Your task to perform on an android device: snooze an email in the gmail app Image 0: 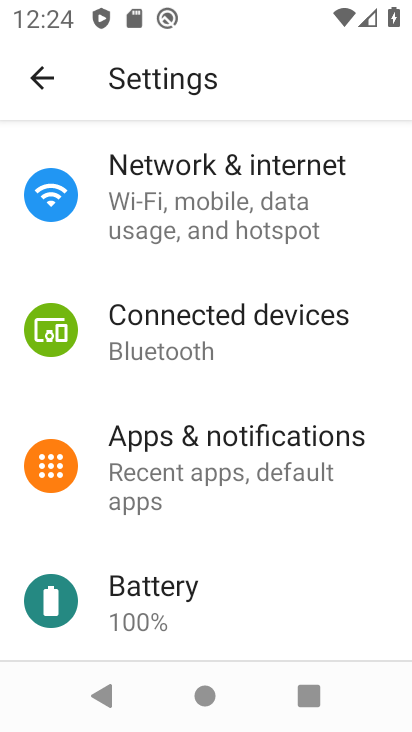
Step 0: press home button
Your task to perform on an android device: snooze an email in the gmail app Image 1: 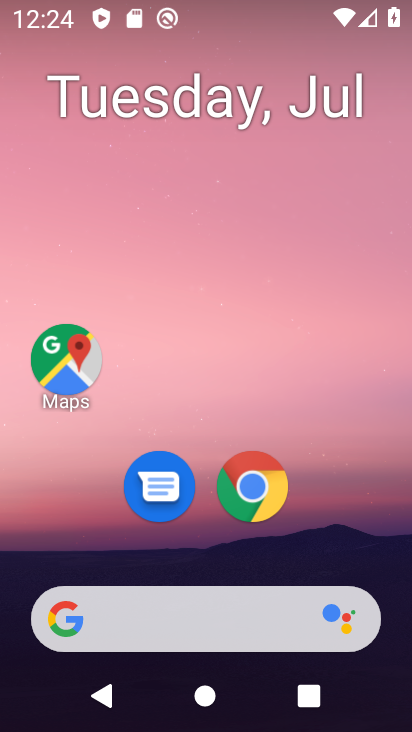
Step 1: drag from (352, 500) to (360, 63)
Your task to perform on an android device: snooze an email in the gmail app Image 2: 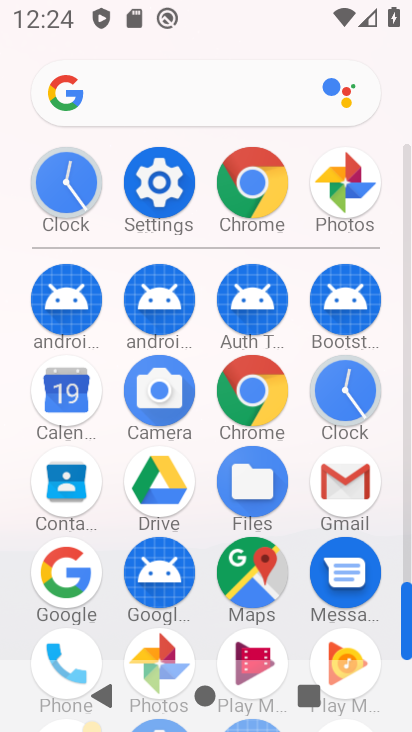
Step 2: click (348, 485)
Your task to perform on an android device: snooze an email in the gmail app Image 3: 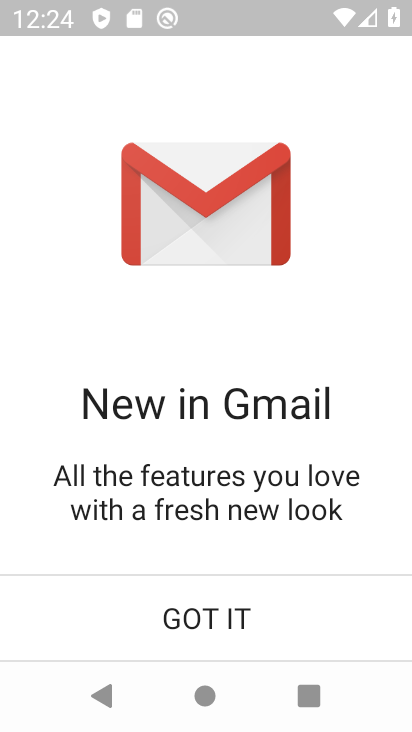
Step 3: click (308, 615)
Your task to perform on an android device: snooze an email in the gmail app Image 4: 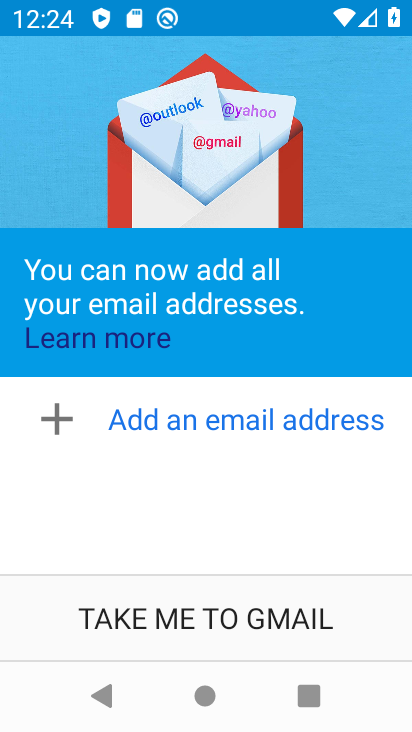
Step 4: click (307, 616)
Your task to perform on an android device: snooze an email in the gmail app Image 5: 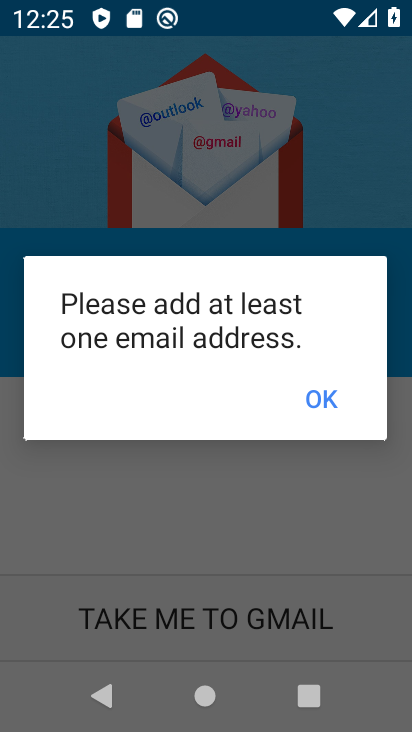
Step 5: task complete